Your task to perform on an android device: change notification settings in the gmail app Image 0: 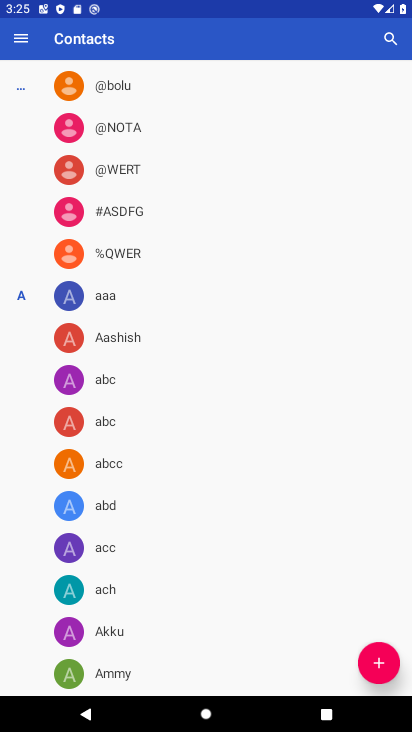
Step 0: press home button
Your task to perform on an android device: change notification settings in the gmail app Image 1: 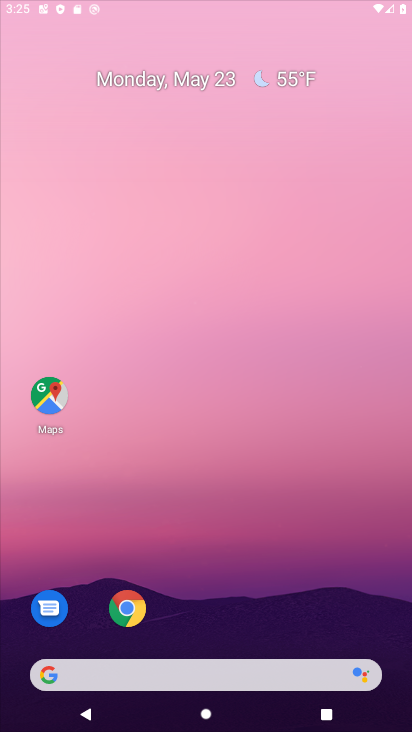
Step 1: drag from (282, 620) to (176, 12)
Your task to perform on an android device: change notification settings in the gmail app Image 2: 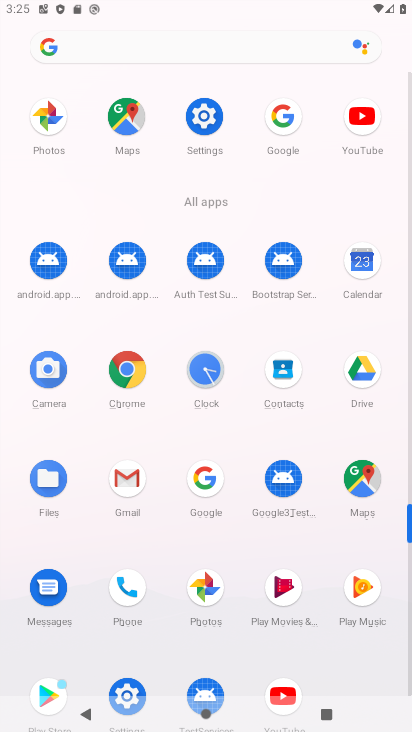
Step 2: click (122, 478)
Your task to perform on an android device: change notification settings in the gmail app Image 3: 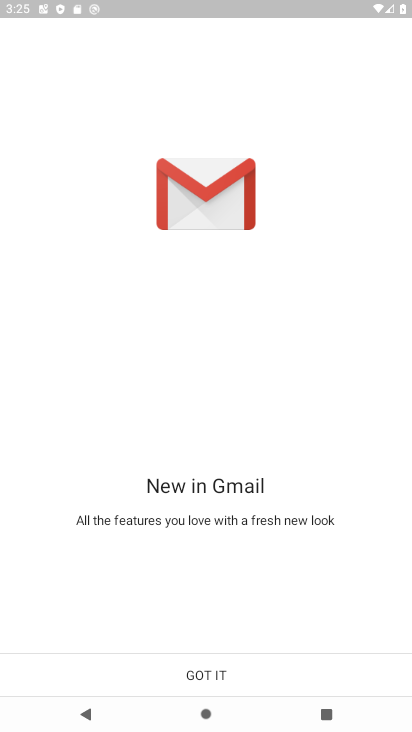
Step 3: click (221, 676)
Your task to perform on an android device: change notification settings in the gmail app Image 4: 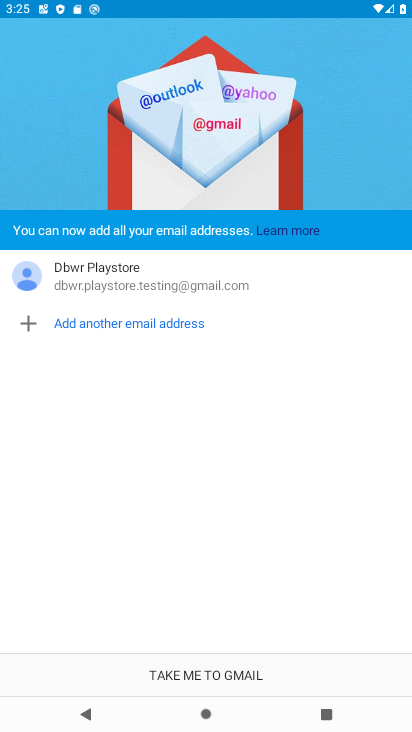
Step 4: click (226, 676)
Your task to perform on an android device: change notification settings in the gmail app Image 5: 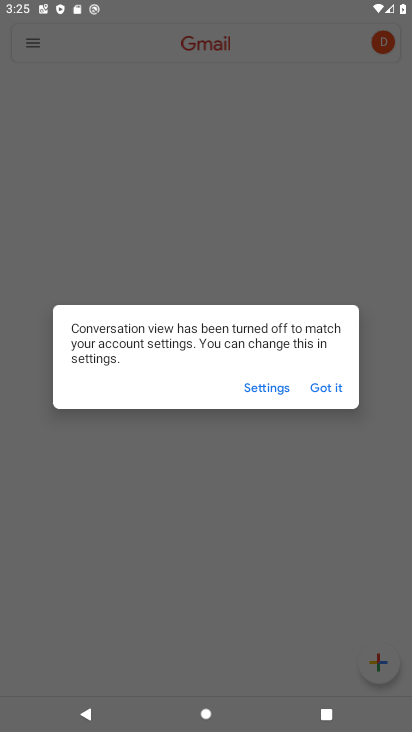
Step 5: click (323, 378)
Your task to perform on an android device: change notification settings in the gmail app Image 6: 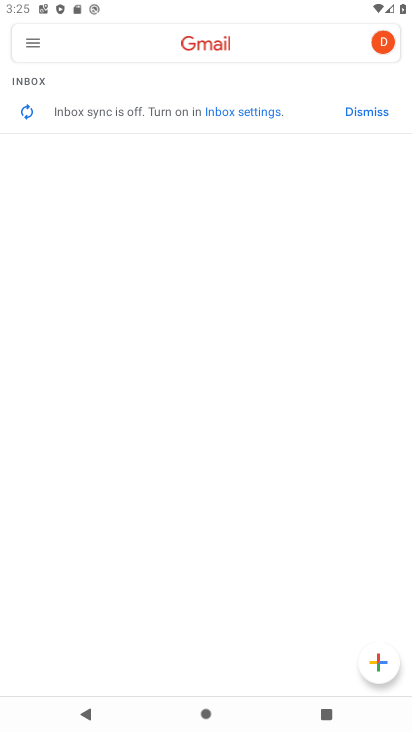
Step 6: click (35, 50)
Your task to perform on an android device: change notification settings in the gmail app Image 7: 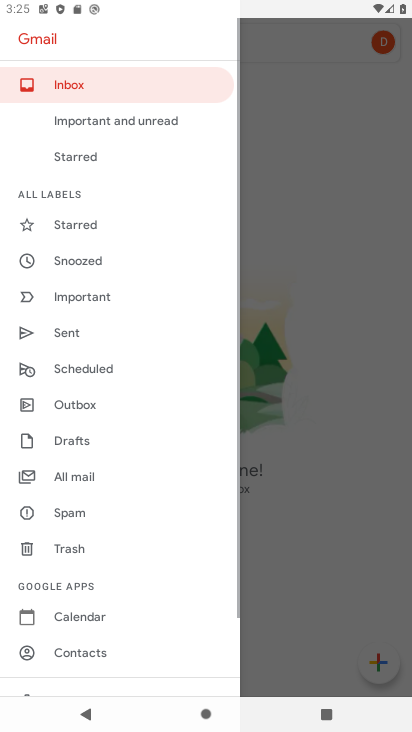
Step 7: drag from (108, 577) to (103, 370)
Your task to perform on an android device: change notification settings in the gmail app Image 8: 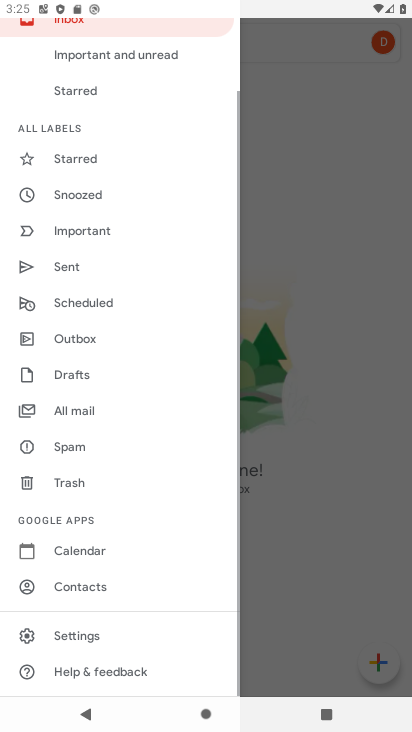
Step 8: click (92, 629)
Your task to perform on an android device: change notification settings in the gmail app Image 9: 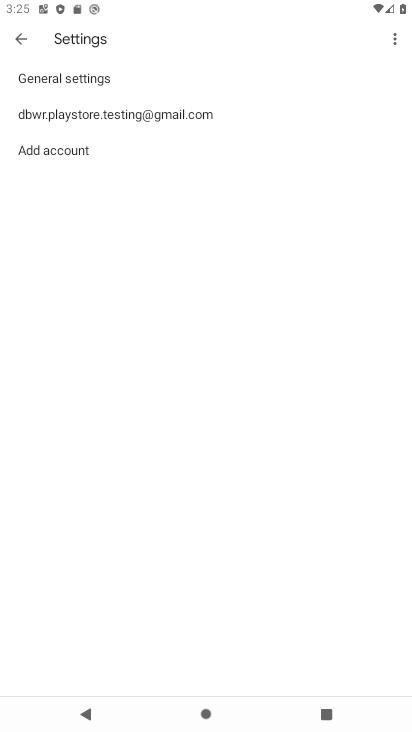
Step 9: click (99, 106)
Your task to perform on an android device: change notification settings in the gmail app Image 10: 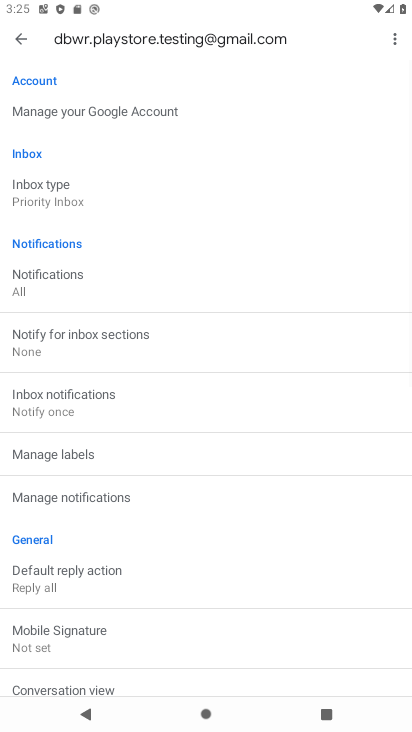
Step 10: click (86, 269)
Your task to perform on an android device: change notification settings in the gmail app Image 11: 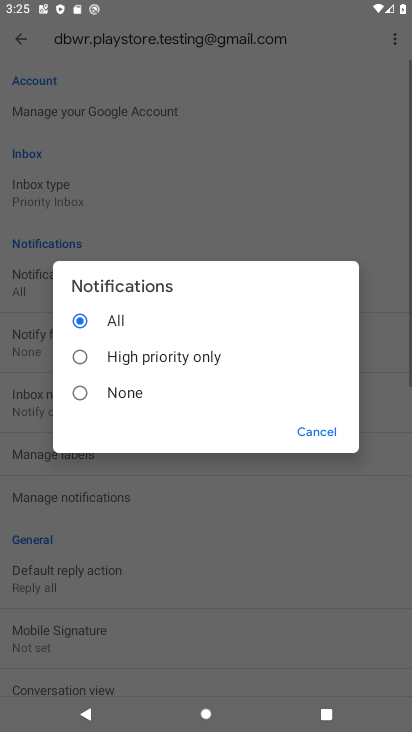
Step 11: click (143, 384)
Your task to perform on an android device: change notification settings in the gmail app Image 12: 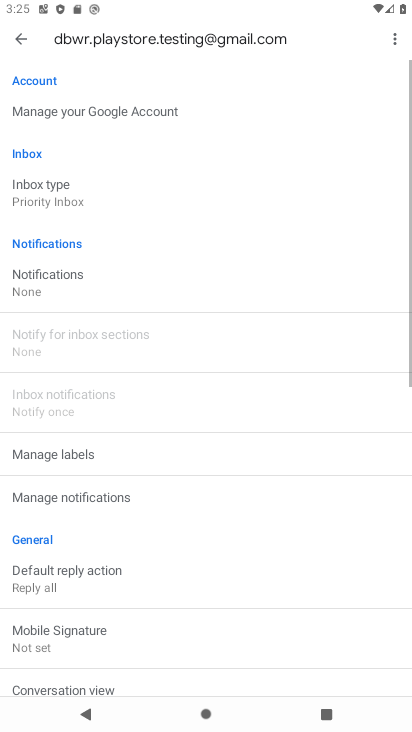
Step 12: task complete